Your task to perform on an android device: open a bookmark in the chrome app Image 0: 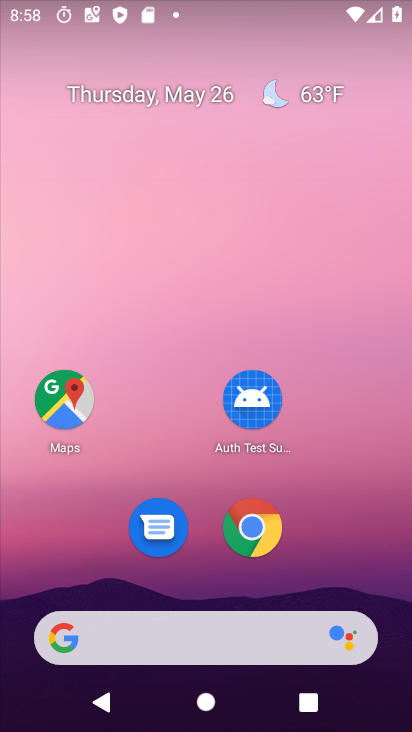
Step 0: drag from (367, 452) to (333, 54)
Your task to perform on an android device: open a bookmark in the chrome app Image 1: 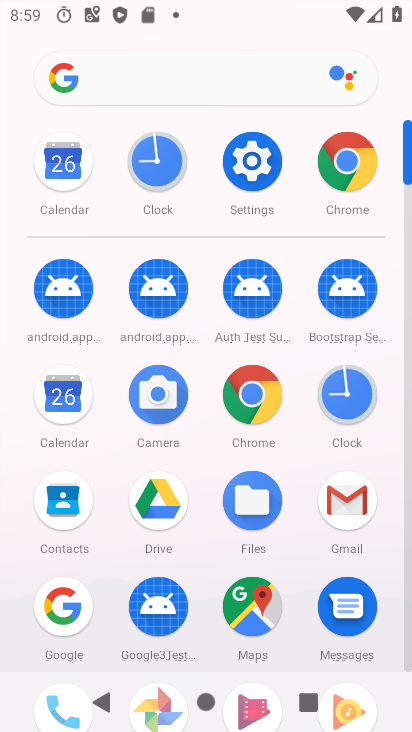
Step 1: click (341, 165)
Your task to perform on an android device: open a bookmark in the chrome app Image 2: 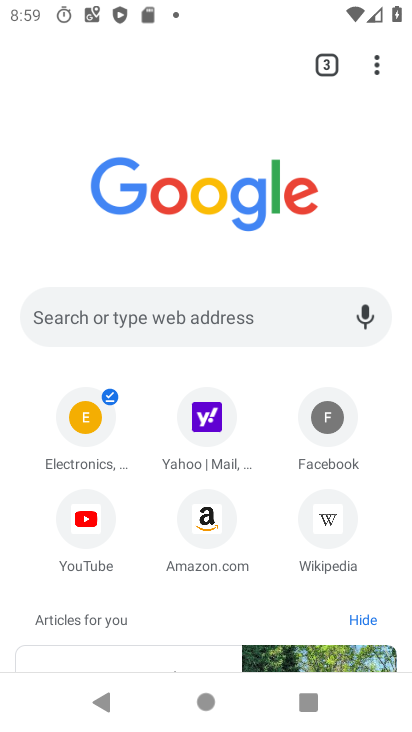
Step 2: task complete